Your task to perform on an android device: Open Maps and search for coffee Image 0: 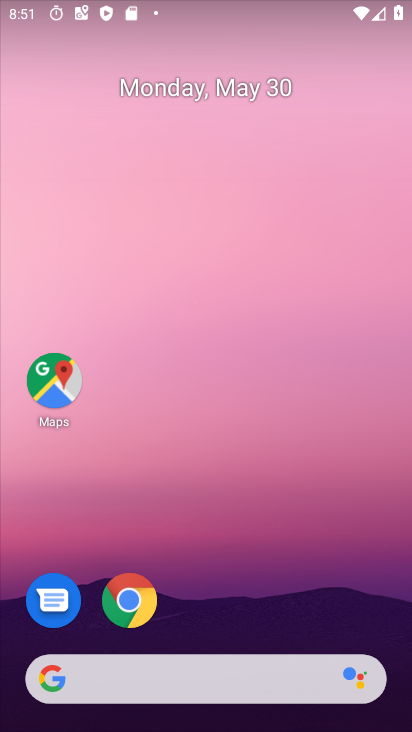
Step 0: drag from (291, 589) to (219, 50)
Your task to perform on an android device: Open Maps and search for coffee Image 1: 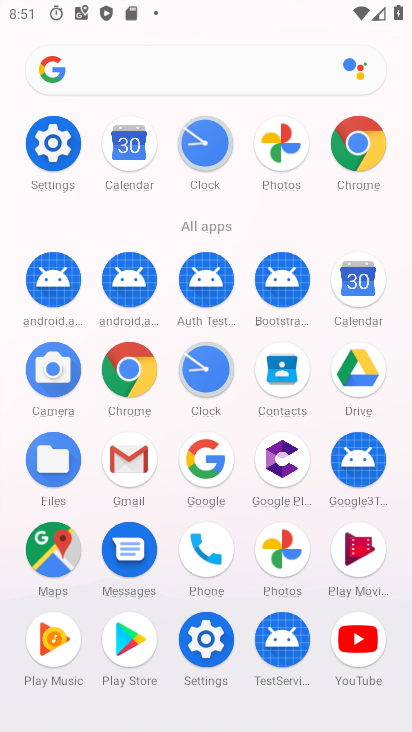
Step 1: drag from (3, 584) to (2, 242)
Your task to perform on an android device: Open Maps and search for coffee Image 2: 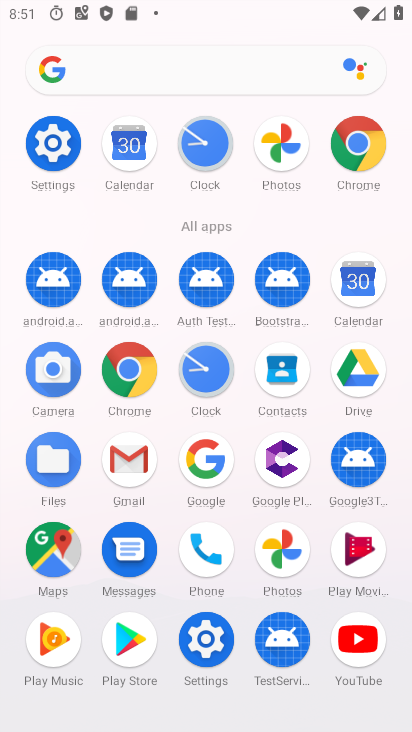
Step 2: click (45, 550)
Your task to perform on an android device: Open Maps and search for coffee Image 3: 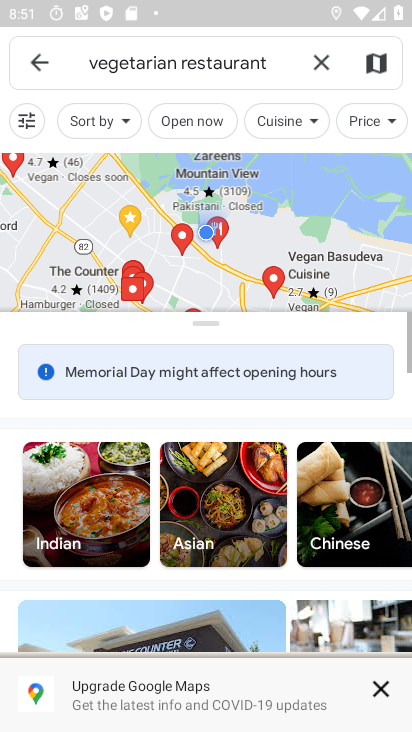
Step 3: click (319, 56)
Your task to perform on an android device: Open Maps and search for coffee Image 4: 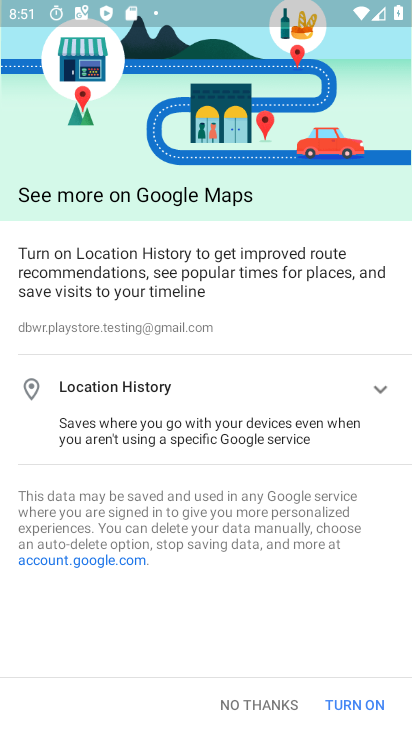
Step 4: click (362, 701)
Your task to perform on an android device: Open Maps and search for coffee Image 5: 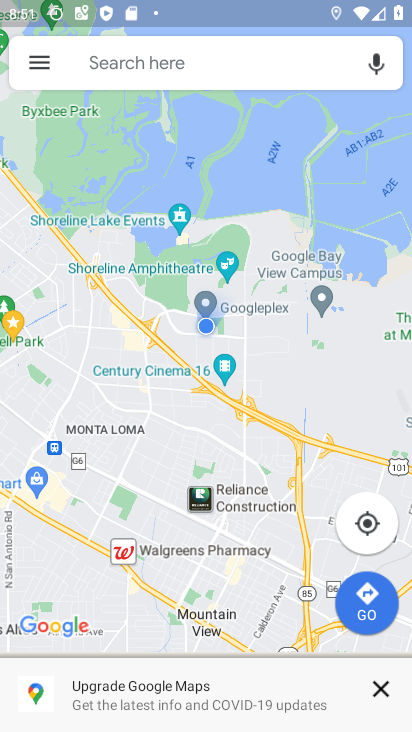
Step 5: click (223, 57)
Your task to perform on an android device: Open Maps and search for coffee Image 6: 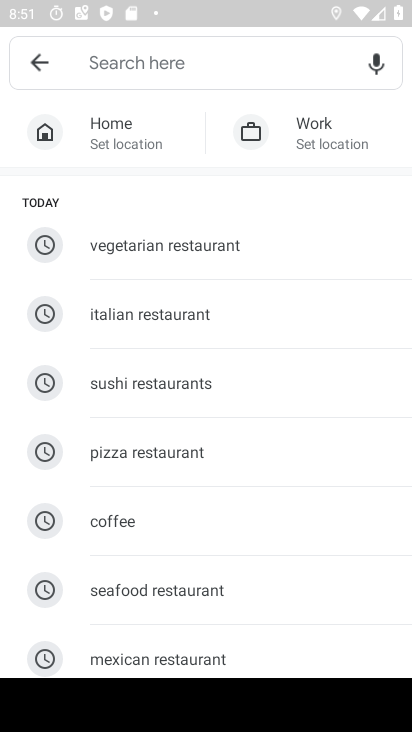
Step 6: click (155, 520)
Your task to perform on an android device: Open Maps and search for coffee Image 7: 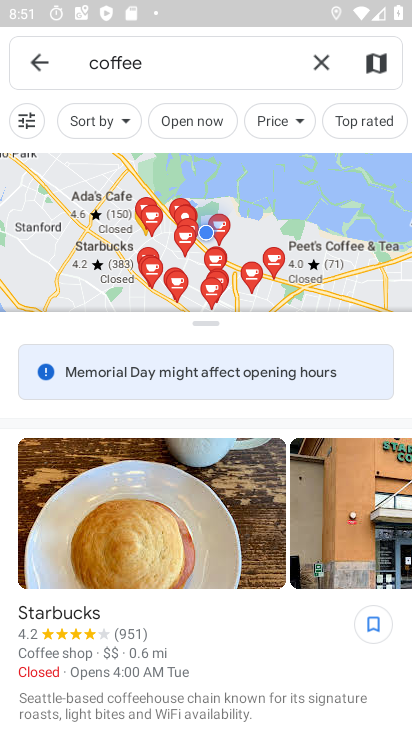
Step 7: task complete